Your task to perform on an android device: Open Wikipedia Image 0: 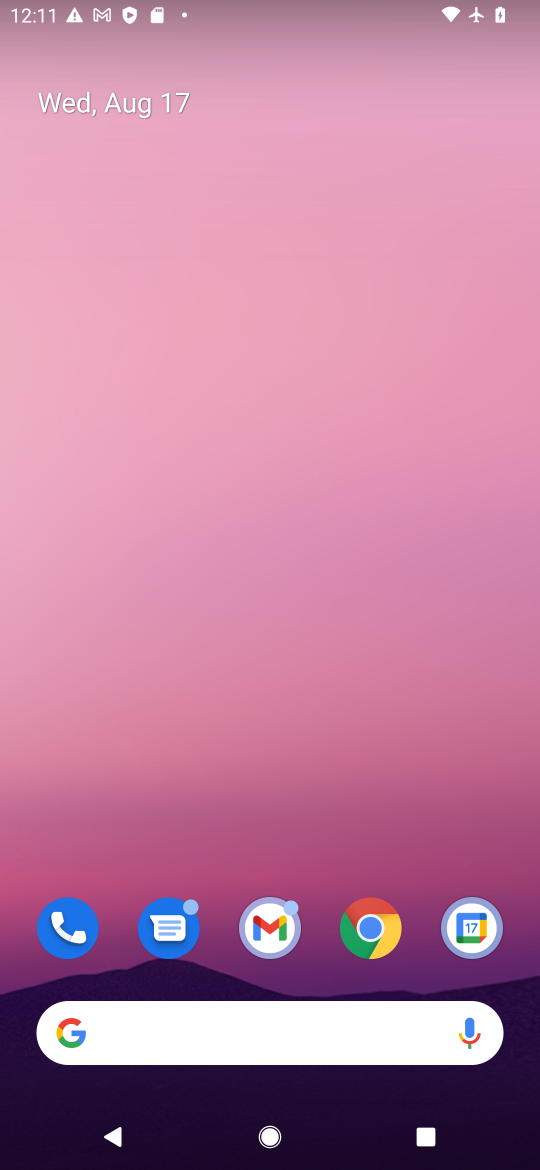
Step 0: click (346, 913)
Your task to perform on an android device: Open Wikipedia Image 1: 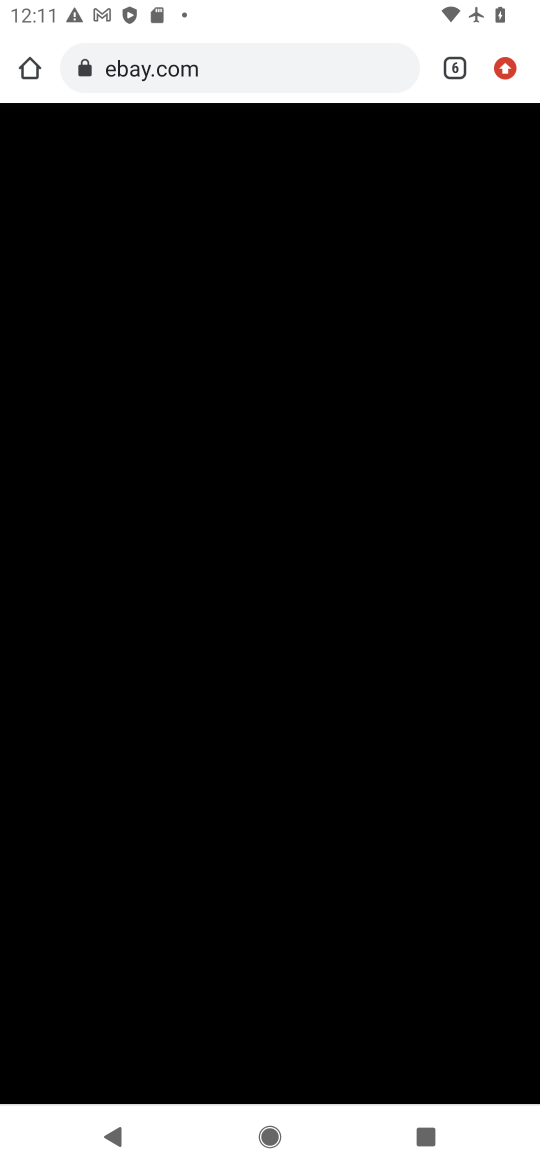
Step 1: click (465, 76)
Your task to perform on an android device: Open Wikipedia Image 2: 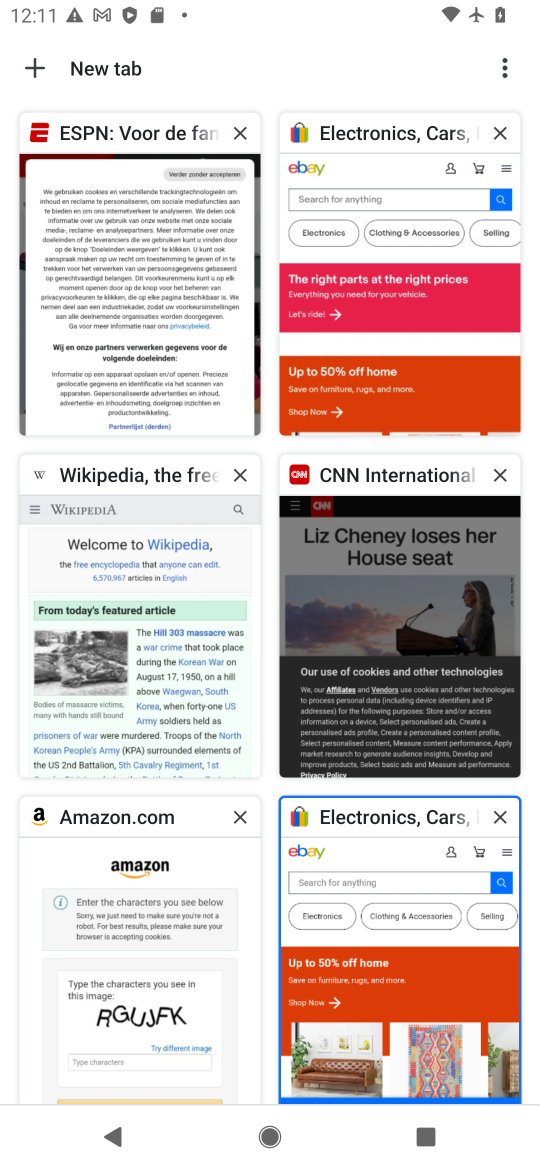
Step 2: click (36, 73)
Your task to perform on an android device: Open Wikipedia Image 3: 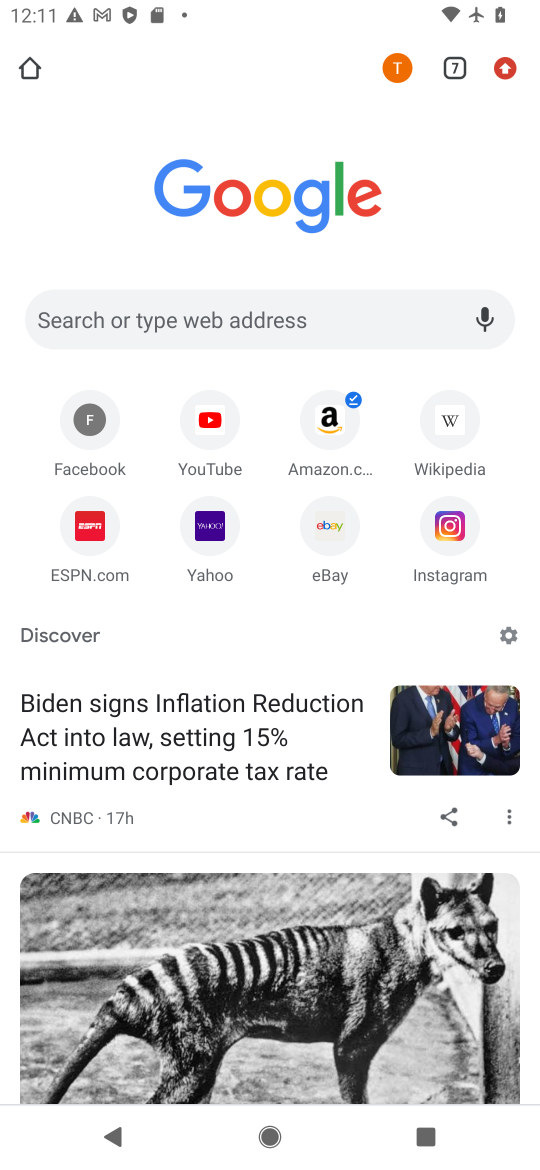
Step 3: click (441, 433)
Your task to perform on an android device: Open Wikipedia Image 4: 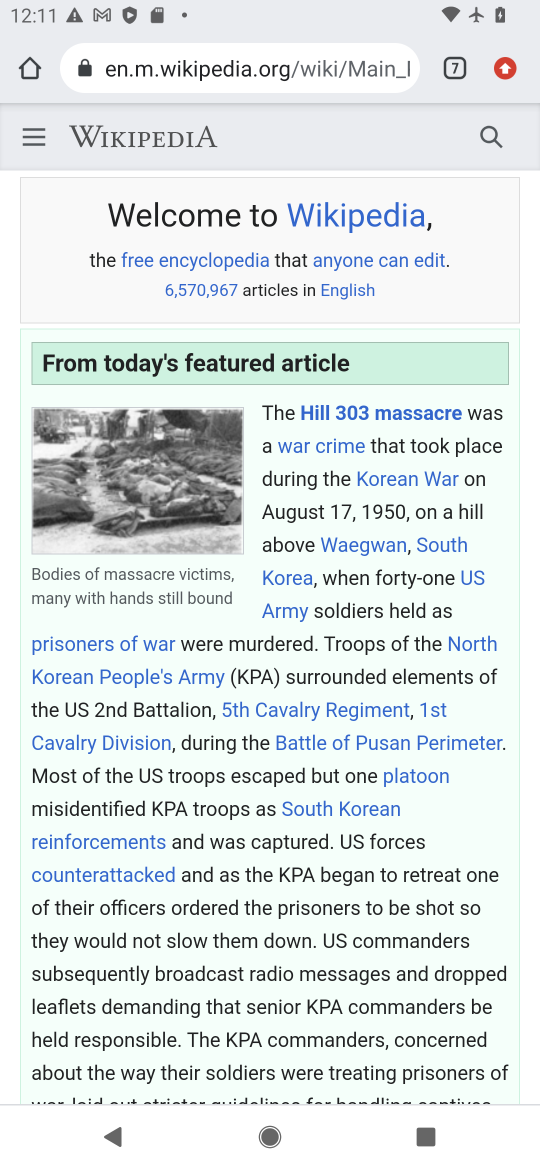
Step 4: task complete